Your task to perform on an android device: toggle improve location accuracy Image 0: 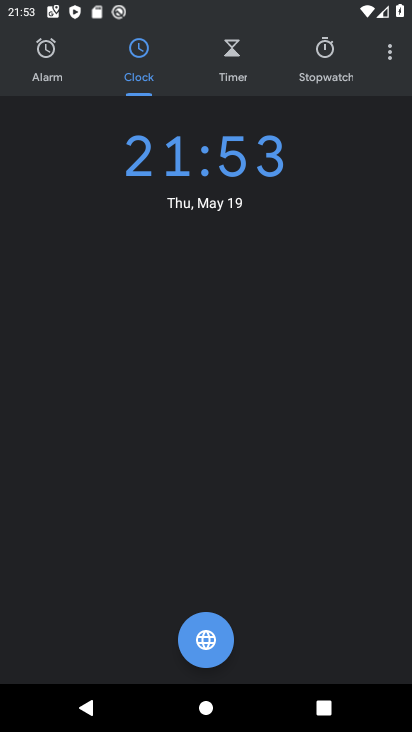
Step 0: press home button
Your task to perform on an android device: toggle improve location accuracy Image 1: 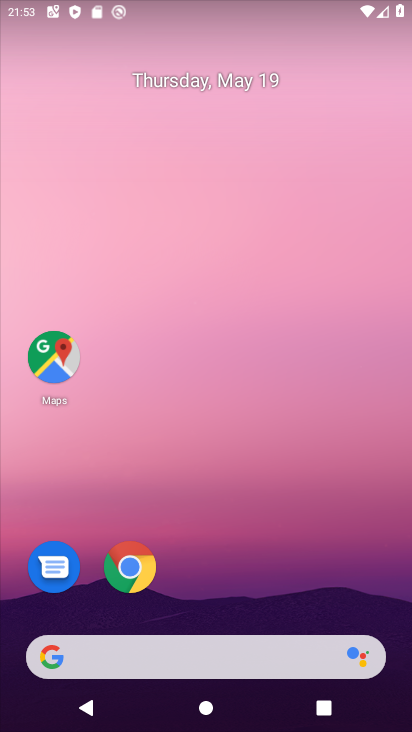
Step 1: drag from (183, 599) to (259, 78)
Your task to perform on an android device: toggle improve location accuracy Image 2: 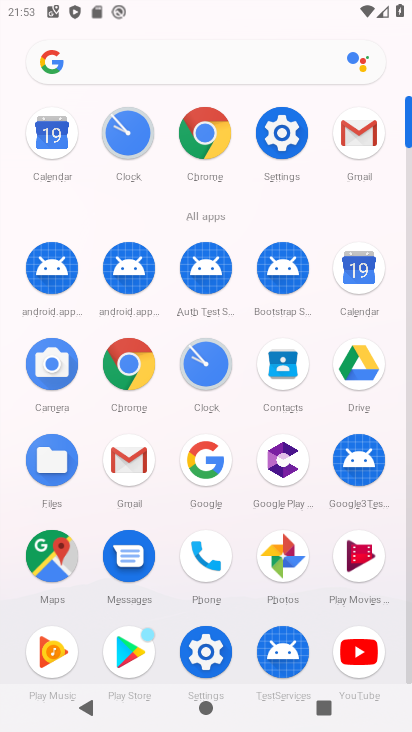
Step 2: click (297, 131)
Your task to perform on an android device: toggle improve location accuracy Image 3: 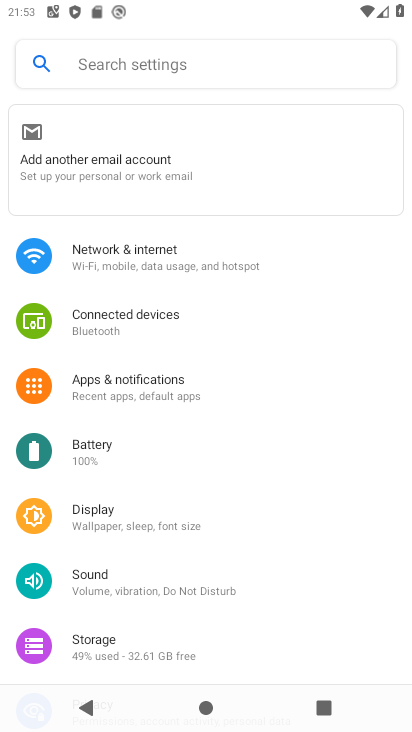
Step 3: drag from (119, 615) to (210, 86)
Your task to perform on an android device: toggle improve location accuracy Image 4: 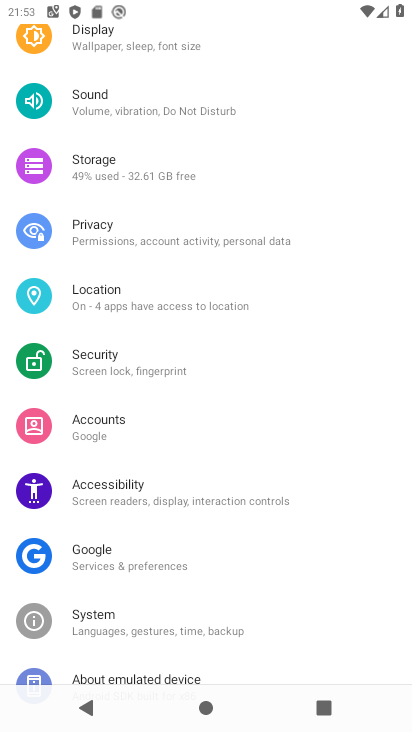
Step 4: click (132, 294)
Your task to perform on an android device: toggle improve location accuracy Image 5: 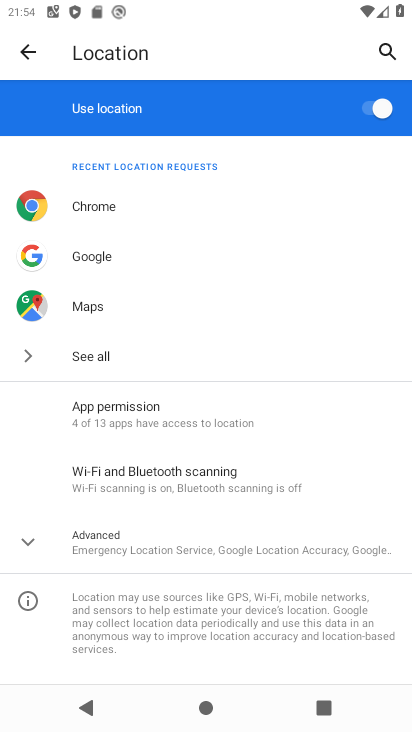
Step 5: click (90, 540)
Your task to perform on an android device: toggle improve location accuracy Image 6: 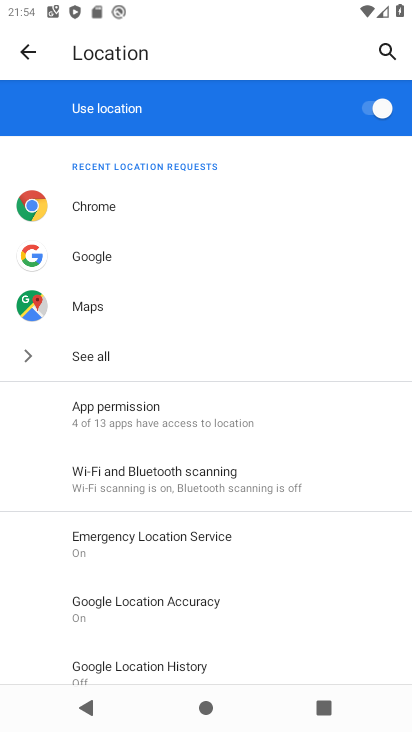
Step 6: click (194, 620)
Your task to perform on an android device: toggle improve location accuracy Image 7: 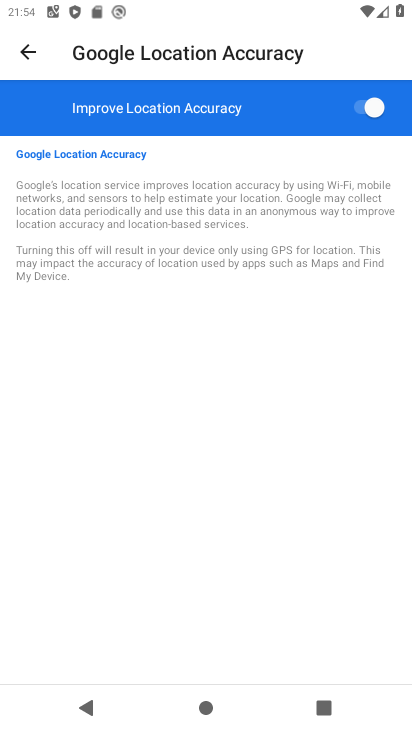
Step 7: click (358, 98)
Your task to perform on an android device: toggle improve location accuracy Image 8: 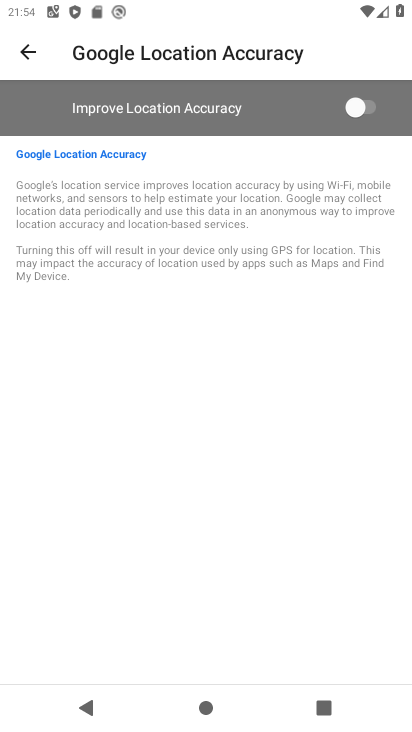
Step 8: task complete